Your task to perform on an android device: What's the weather going to be this weekend? Image 0: 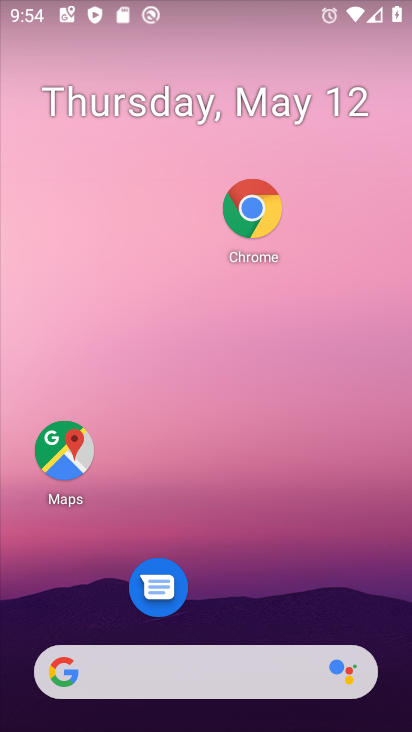
Step 0: drag from (289, 601) to (297, 278)
Your task to perform on an android device: What's the weather going to be this weekend? Image 1: 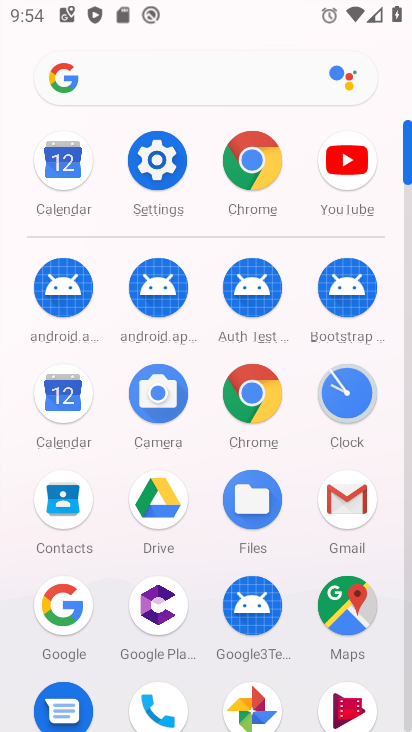
Step 1: click (253, 149)
Your task to perform on an android device: What's the weather going to be this weekend? Image 2: 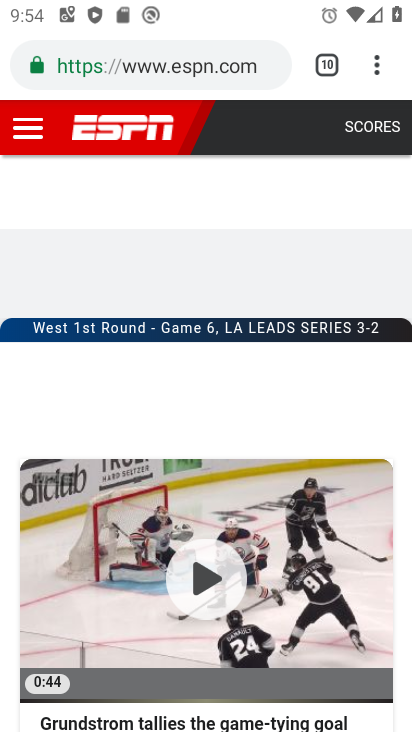
Step 2: click (357, 66)
Your task to perform on an android device: What's the weather going to be this weekend? Image 3: 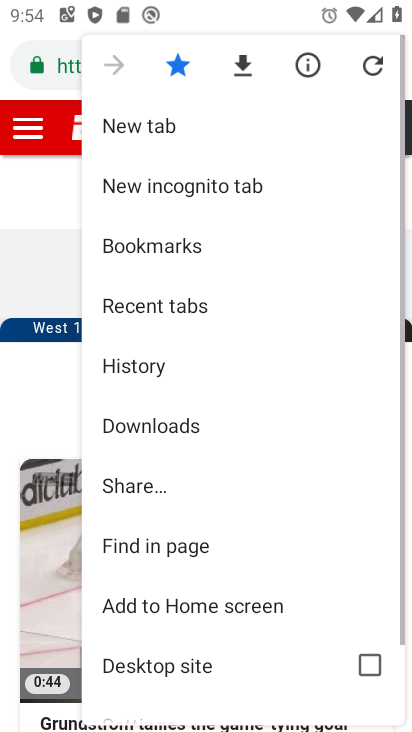
Step 3: click (159, 122)
Your task to perform on an android device: What's the weather going to be this weekend? Image 4: 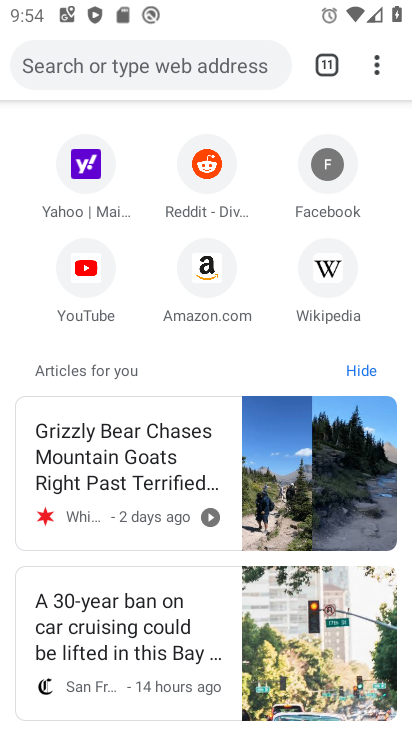
Step 4: click (134, 57)
Your task to perform on an android device: What's the weather going to be this weekend? Image 5: 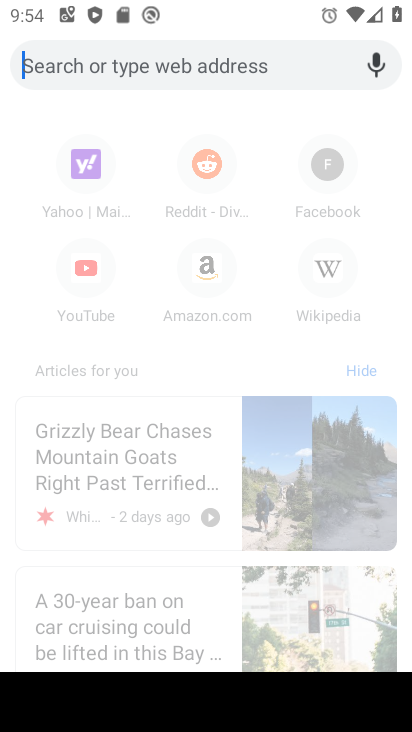
Step 5: type "What's the weather going to be this weekend?"
Your task to perform on an android device: What's the weather going to be this weekend? Image 6: 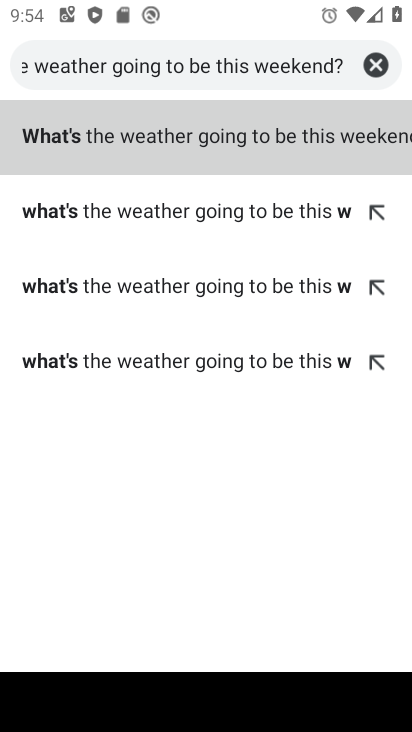
Step 6: click (97, 143)
Your task to perform on an android device: What's the weather going to be this weekend? Image 7: 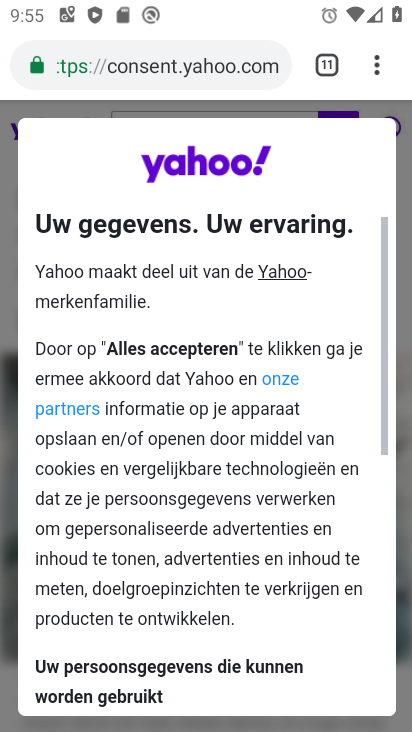
Step 7: click (297, 99)
Your task to perform on an android device: What's the weather going to be this weekend? Image 8: 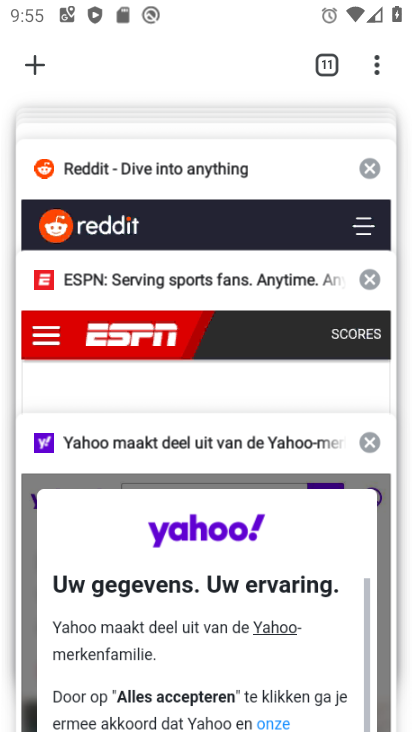
Step 8: click (30, 62)
Your task to perform on an android device: What's the weather going to be this weekend? Image 9: 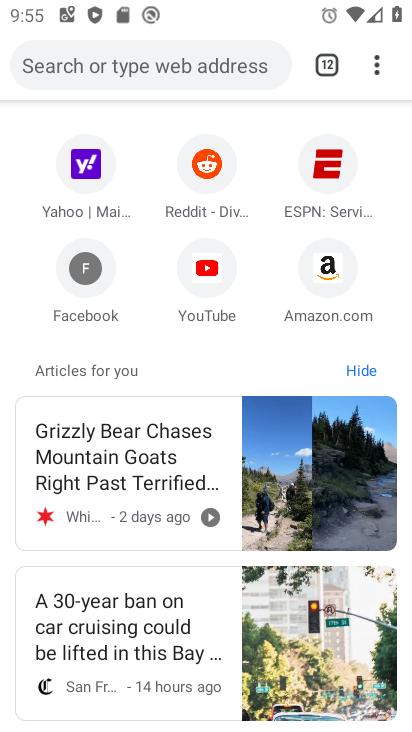
Step 9: click (36, 64)
Your task to perform on an android device: What's the weather going to be this weekend? Image 10: 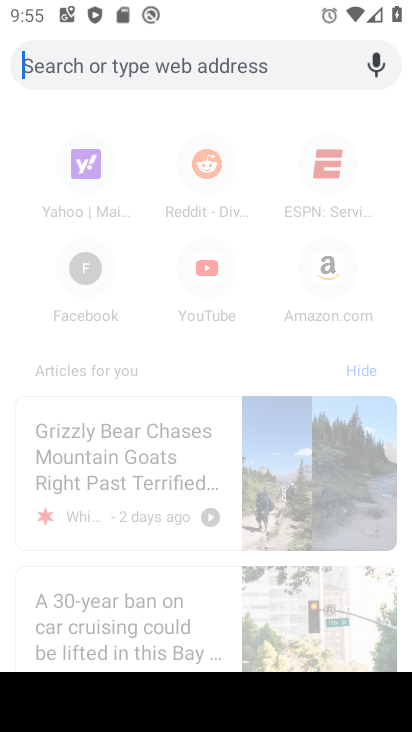
Step 10: type "What's the weather going to be this weekend?"
Your task to perform on an android device: What's the weather going to be this weekend? Image 11: 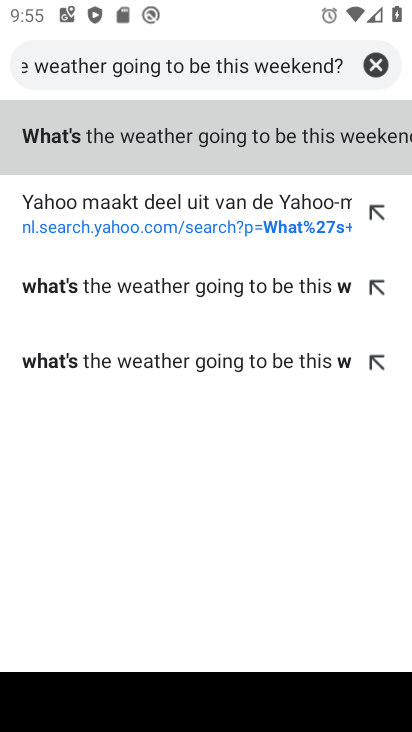
Step 11: click (260, 144)
Your task to perform on an android device: What's the weather going to be this weekend? Image 12: 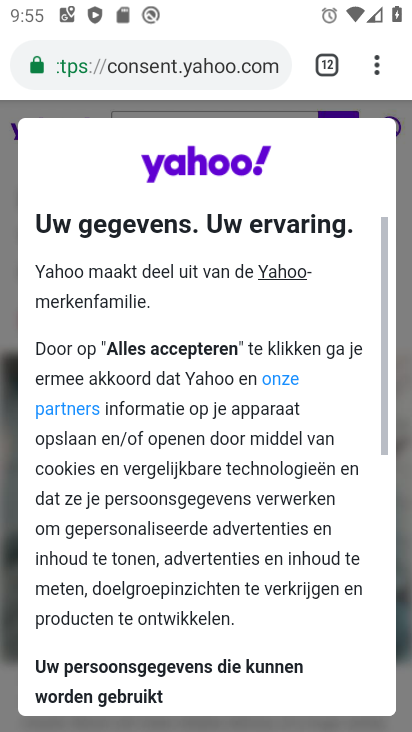
Step 12: task complete